Your task to perform on an android device: Open Chrome and go to settings Image 0: 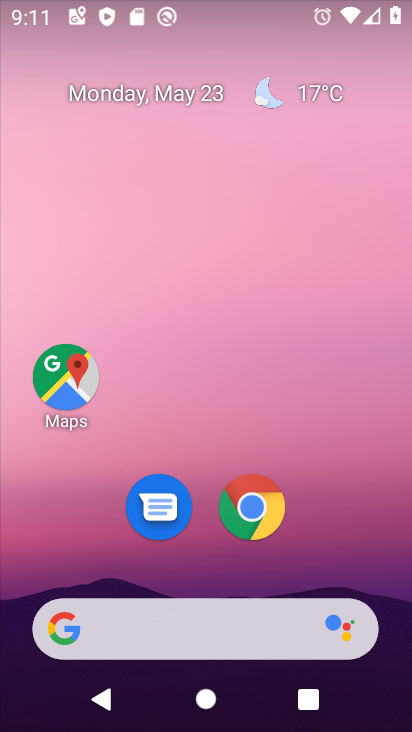
Step 0: click (255, 509)
Your task to perform on an android device: Open Chrome and go to settings Image 1: 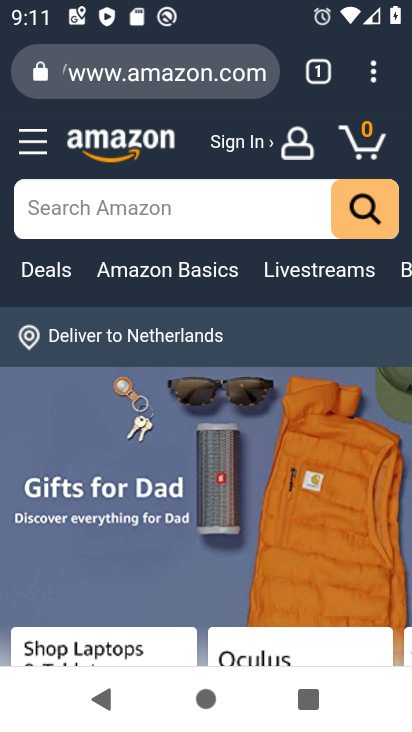
Step 1: click (378, 72)
Your task to perform on an android device: Open Chrome and go to settings Image 2: 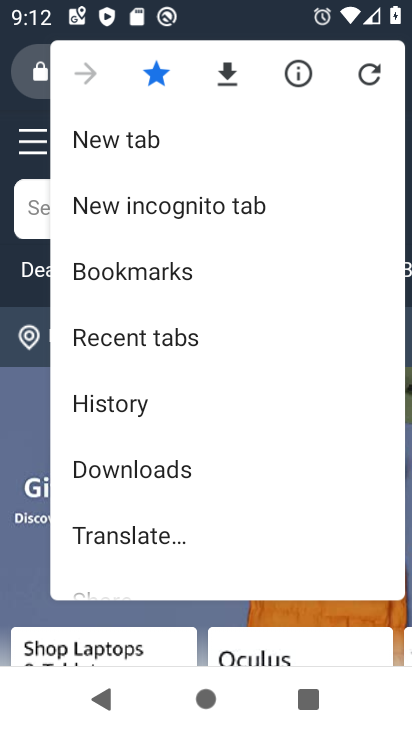
Step 2: drag from (258, 524) to (237, 145)
Your task to perform on an android device: Open Chrome and go to settings Image 3: 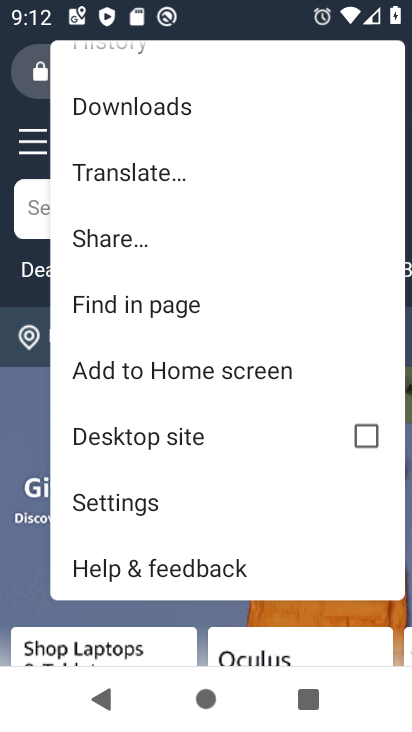
Step 3: click (150, 511)
Your task to perform on an android device: Open Chrome and go to settings Image 4: 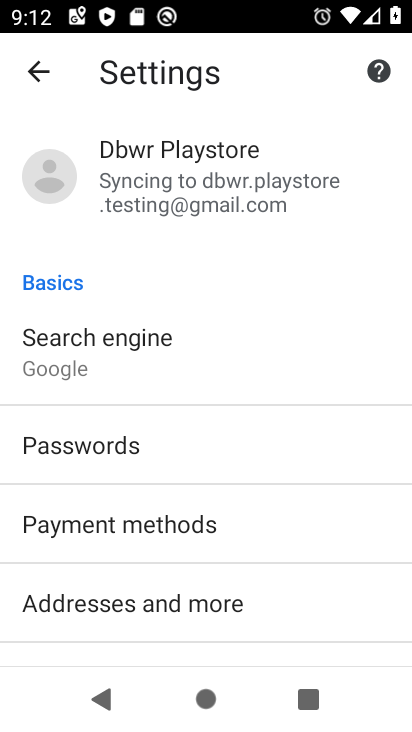
Step 4: task complete